Your task to perform on an android device: Go to wifi settings Image 0: 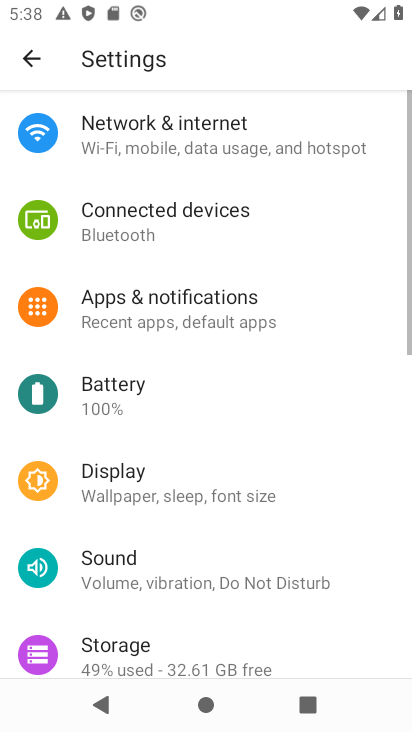
Step 0: press home button
Your task to perform on an android device: Go to wifi settings Image 1: 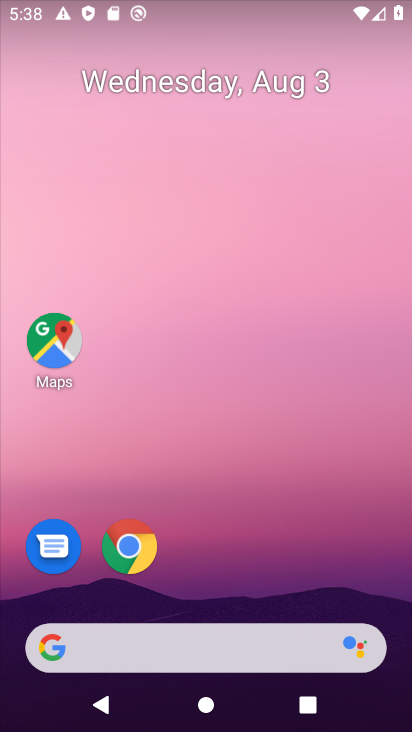
Step 1: drag from (345, 288) to (360, 14)
Your task to perform on an android device: Go to wifi settings Image 2: 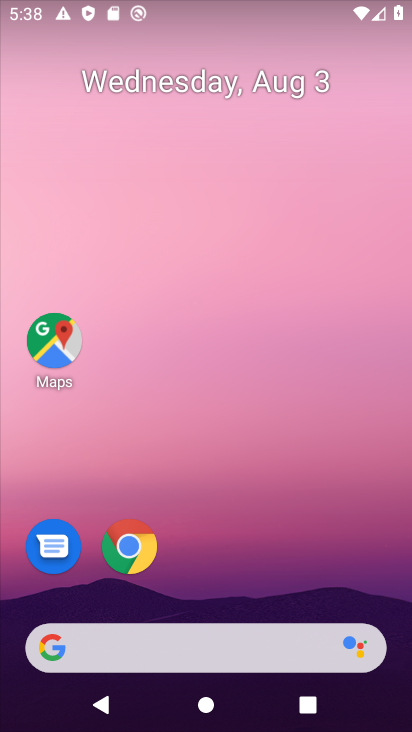
Step 2: drag from (300, 579) to (384, 108)
Your task to perform on an android device: Go to wifi settings Image 3: 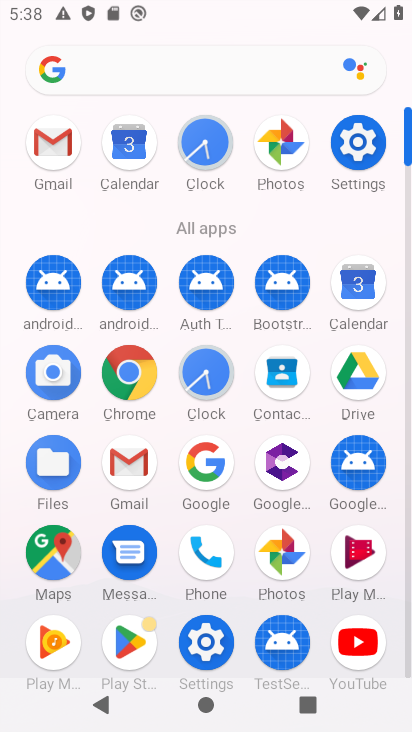
Step 3: click (332, 150)
Your task to perform on an android device: Go to wifi settings Image 4: 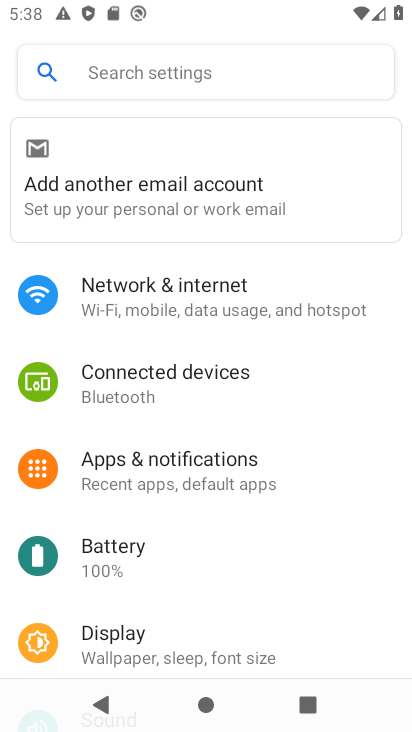
Step 4: click (184, 295)
Your task to perform on an android device: Go to wifi settings Image 5: 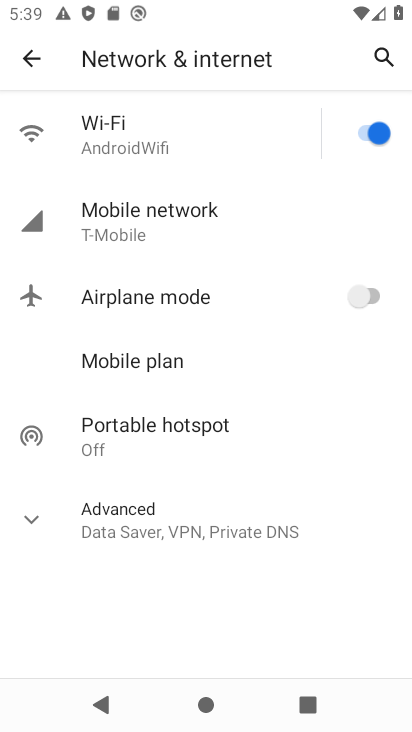
Step 5: click (113, 149)
Your task to perform on an android device: Go to wifi settings Image 6: 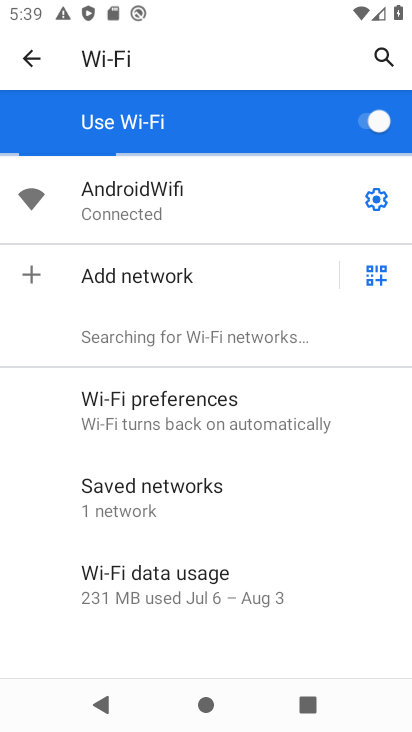
Step 6: task complete